Your task to perform on an android device: Show me popular videos on Youtube Image 0: 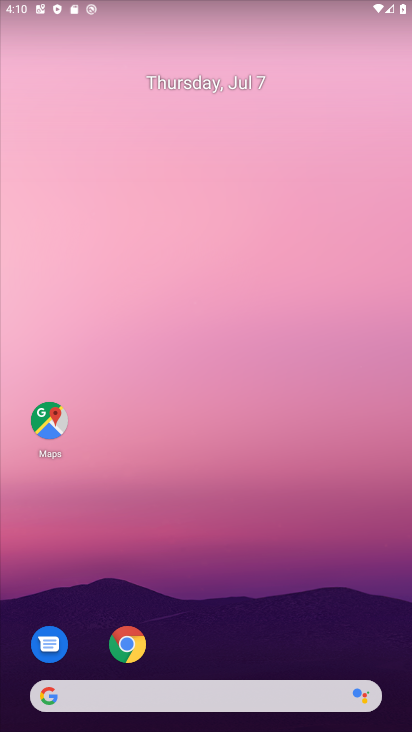
Step 0: drag from (188, 646) to (216, 175)
Your task to perform on an android device: Show me popular videos on Youtube Image 1: 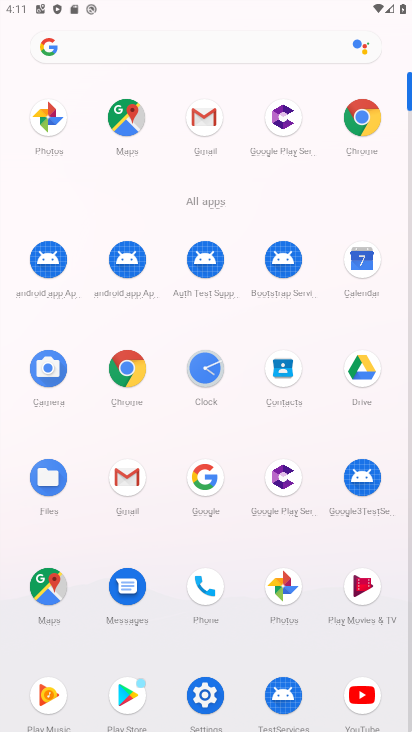
Step 1: click (361, 683)
Your task to perform on an android device: Show me popular videos on Youtube Image 2: 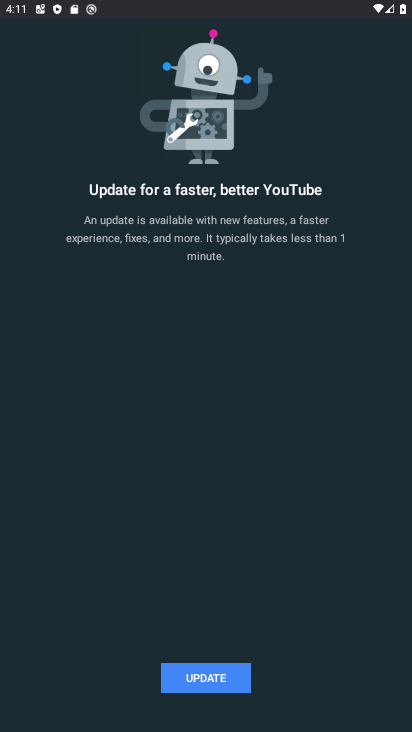
Step 2: click (225, 675)
Your task to perform on an android device: Show me popular videos on Youtube Image 3: 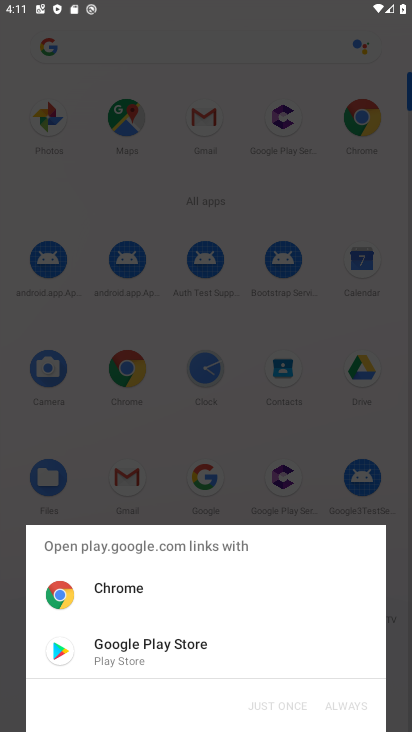
Step 3: click (149, 654)
Your task to perform on an android device: Show me popular videos on Youtube Image 4: 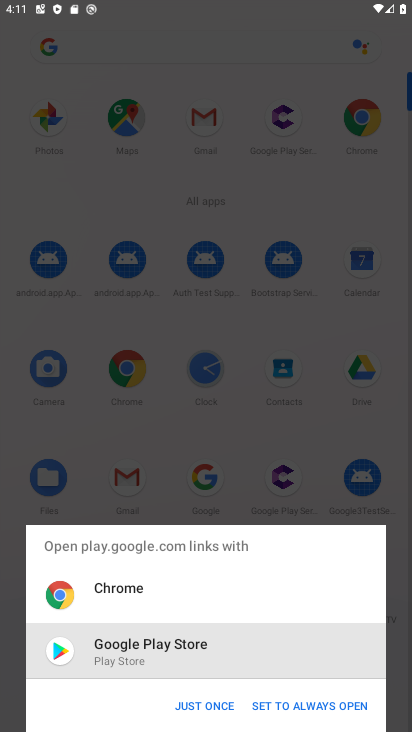
Step 4: click (194, 701)
Your task to perform on an android device: Show me popular videos on Youtube Image 5: 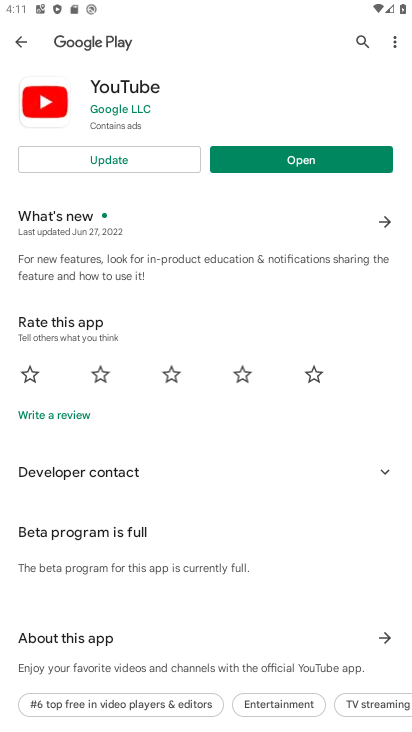
Step 5: click (150, 163)
Your task to perform on an android device: Show me popular videos on Youtube Image 6: 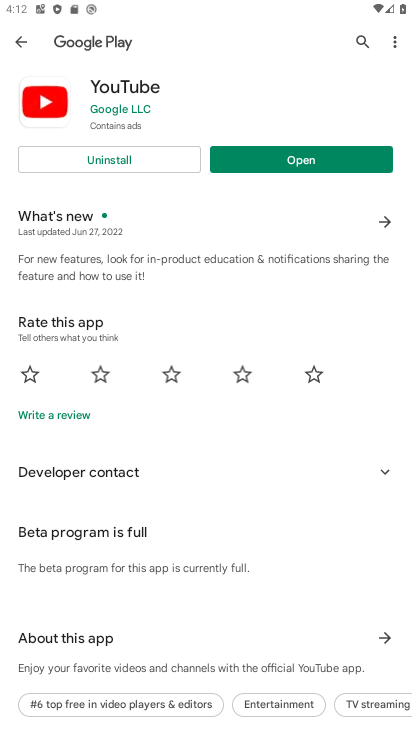
Step 6: click (336, 164)
Your task to perform on an android device: Show me popular videos on Youtube Image 7: 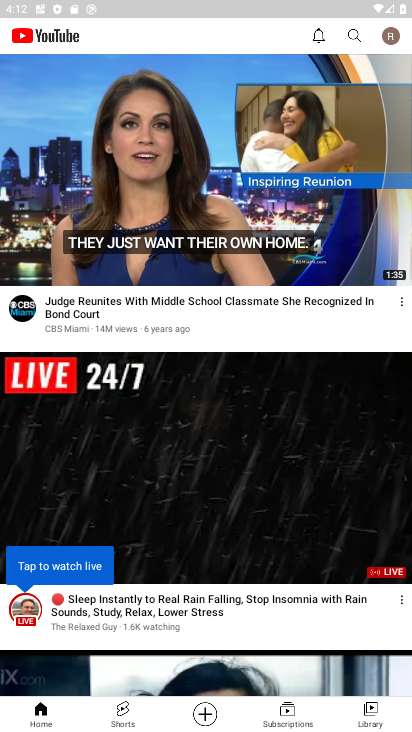
Step 7: drag from (168, 167) to (186, 466)
Your task to perform on an android device: Show me popular videos on Youtube Image 8: 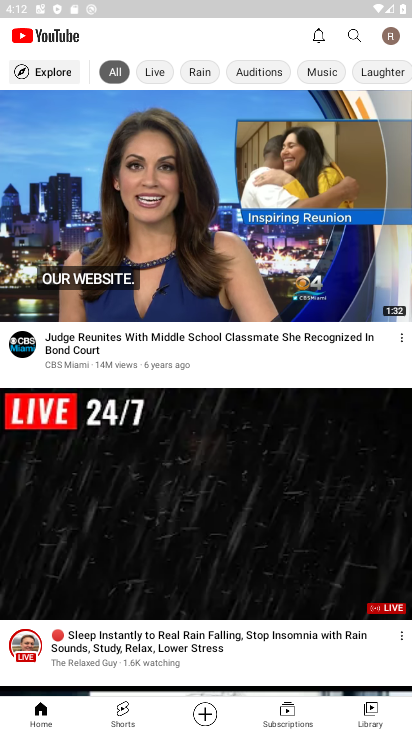
Step 8: click (41, 74)
Your task to perform on an android device: Show me popular videos on Youtube Image 9: 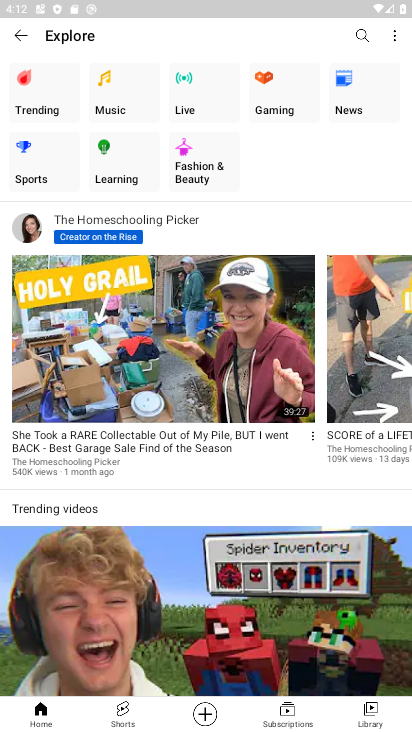
Step 9: click (44, 89)
Your task to perform on an android device: Show me popular videos on Youtube Image 10: 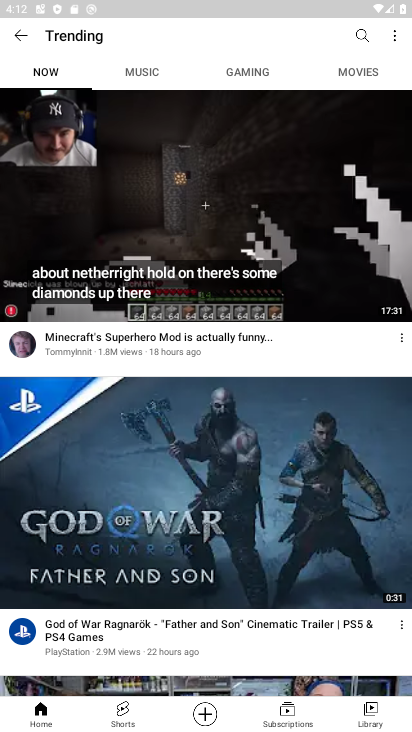
Step 10: task complete